Your task to perform on an android device: Go to Amazon Image 0: 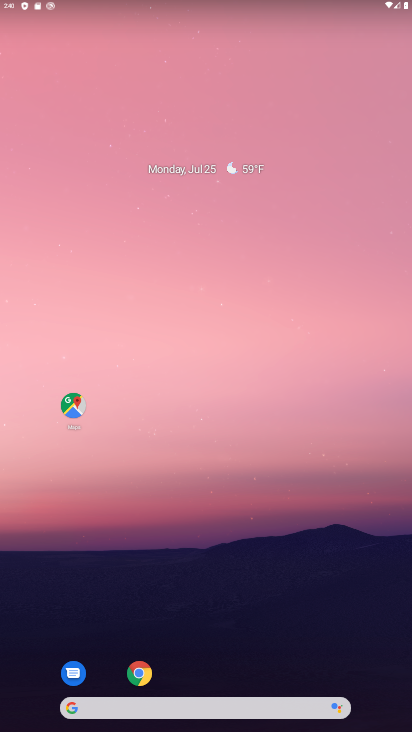
Step 0: click (137, 683)
Your task to perform on an android device: Go to Amazon Image 1: 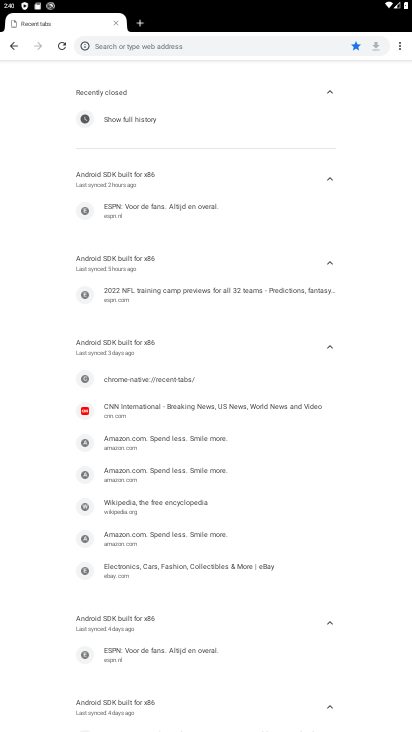
Step 1: click (16, 46)
Your task to perform on an android device: Go to Amazon Image 2: 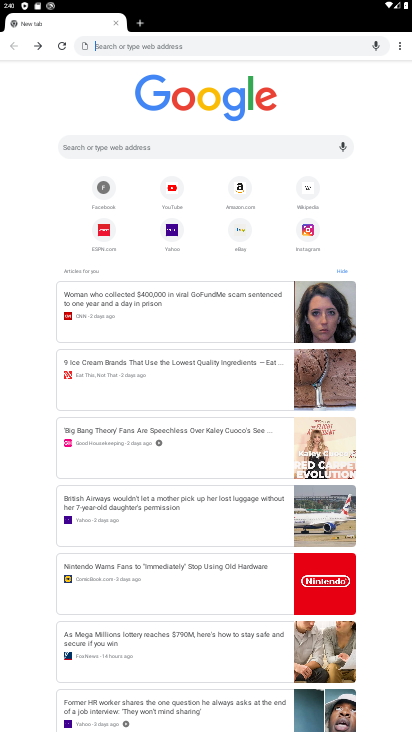
Step 2: click (239, 189)
Your task to perform on an android device: Go to Amazon Image 3: 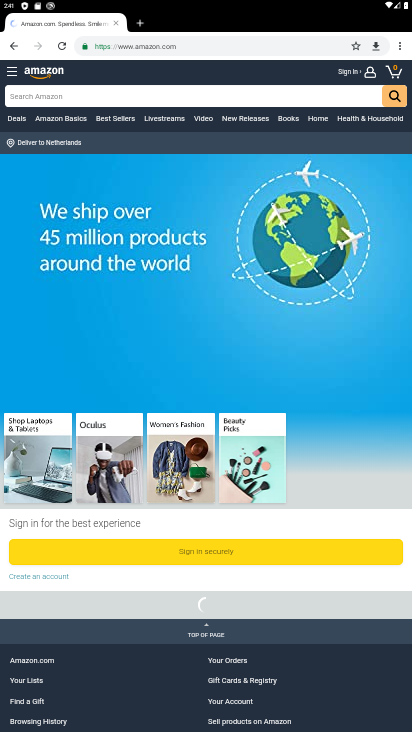
Step 3: task complete